Your task to perform on an android device: Open Chrome and go to the settings page Image 0: 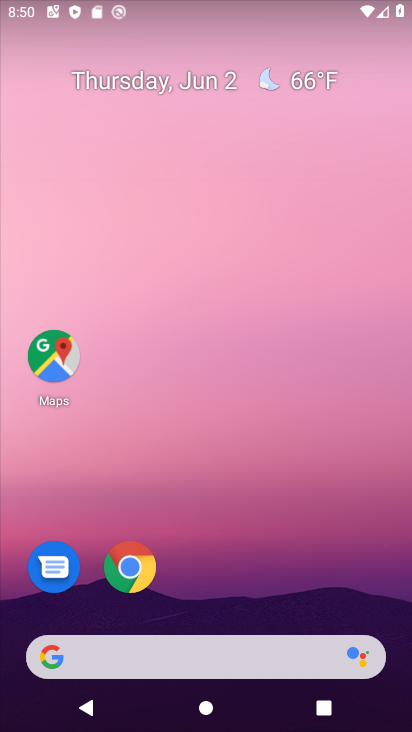
Step 0: click (124, 562)
Your task to perform on an android device: Open Chrome and go to the settings page Image 1: 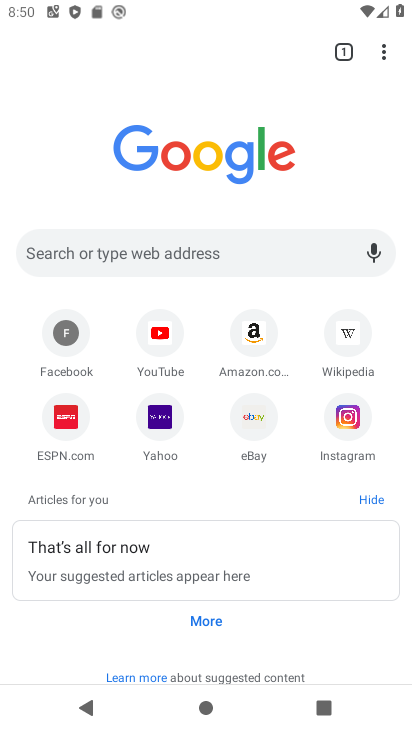
Step 1: click (382, 59)
Your task to perform on an android device: Open Chrome and go to the settings page Image 2: 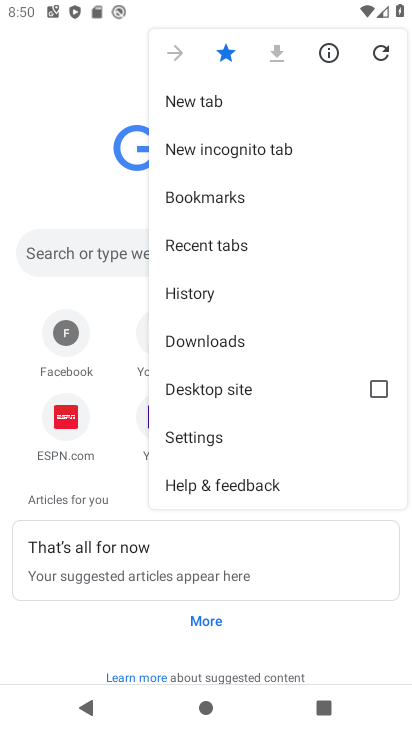
Step 2: click (201, 436)
Your task to perform on an android device: Open Chrome and go to the settings page Image 3: 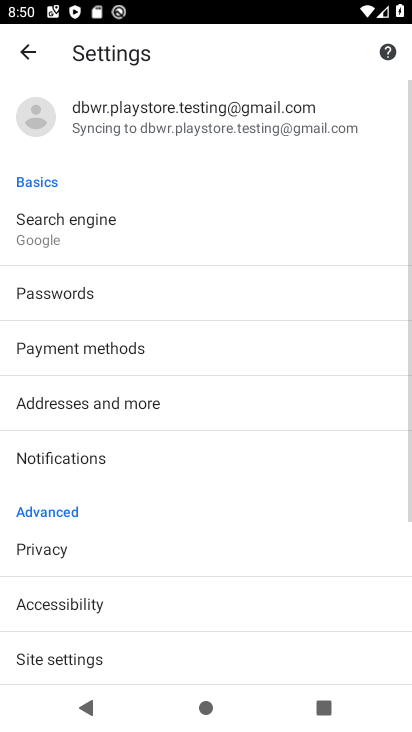
Step 3: task complete